Your task to perform on an android device: check google app version Image 0: 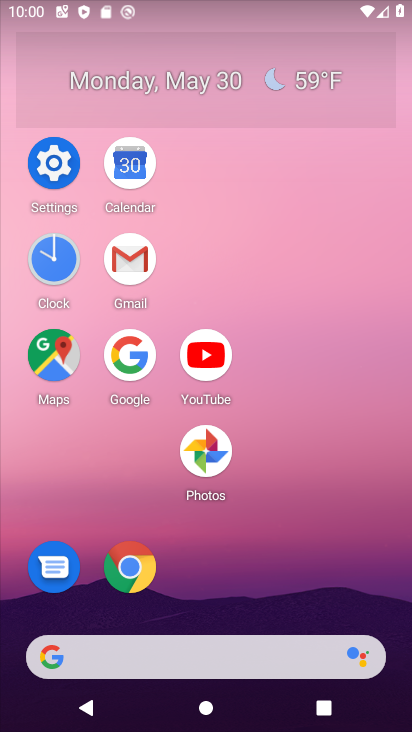
Step 0: click (137, 362)
Your task to perform on an android device: check google app version Image 1: 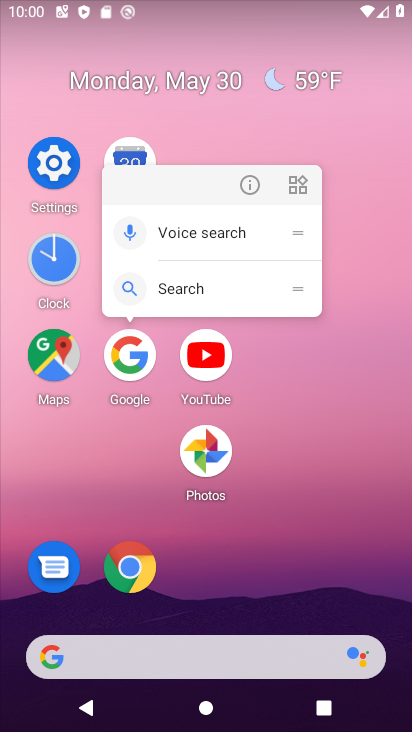
Step 1: click (254, 174)
Your task to perform on an android device: check google app version Image 2: 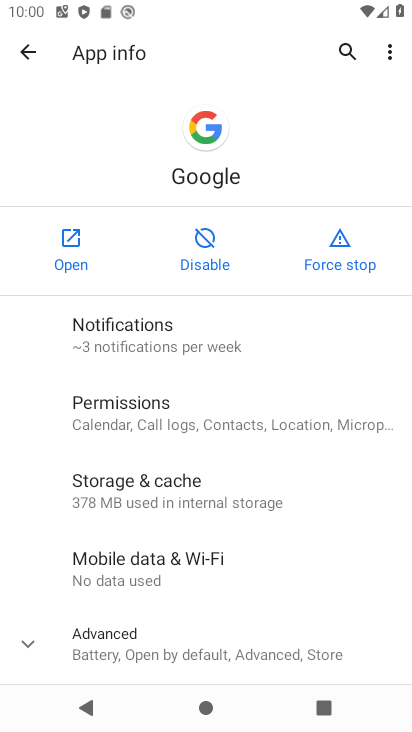
Step 2: drag from (227, 598) to (163, 174)
Your task to perform on an android device: check google app version Image 3: 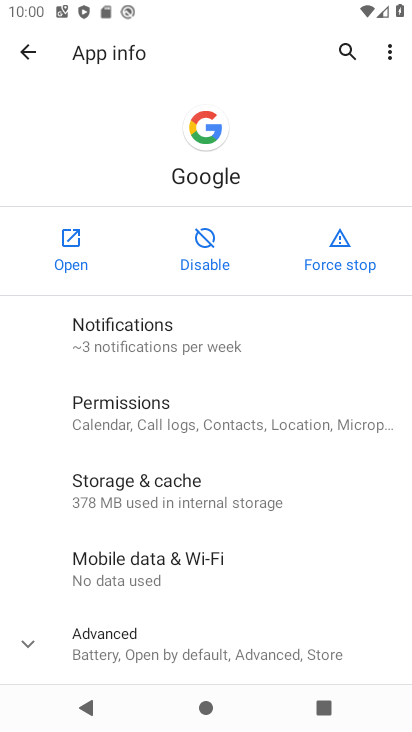
Step 3: click (233, 628)
Your task to perform on an android device: check google app version Image 4: 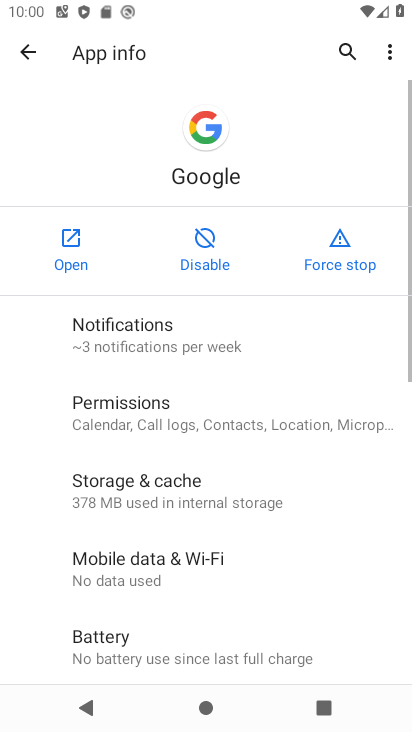
Step 4: task complete